Your task to perform on an android device: delete location history Image 0: 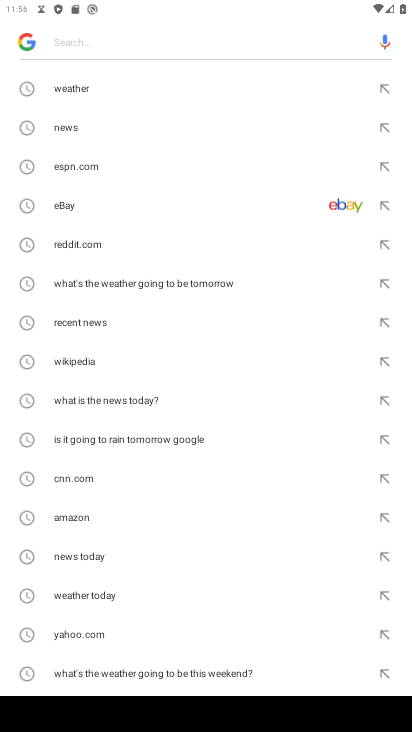
Step 0: press home button
Your task to perform on an android device: delete location history Image 1: 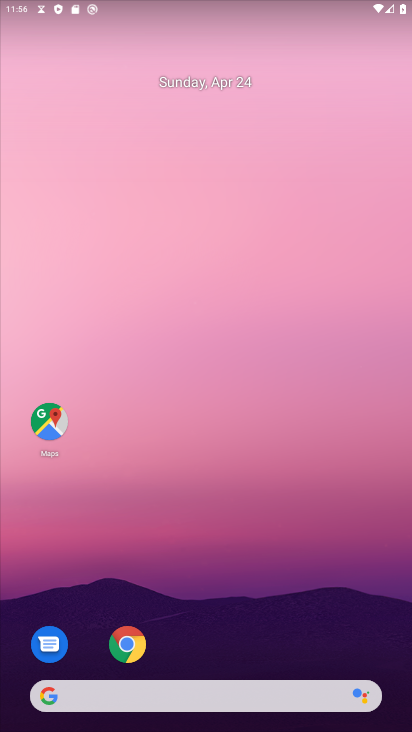
Step 1: click (49, 420)
Your task to perform on an android device: delete location history Image 2: 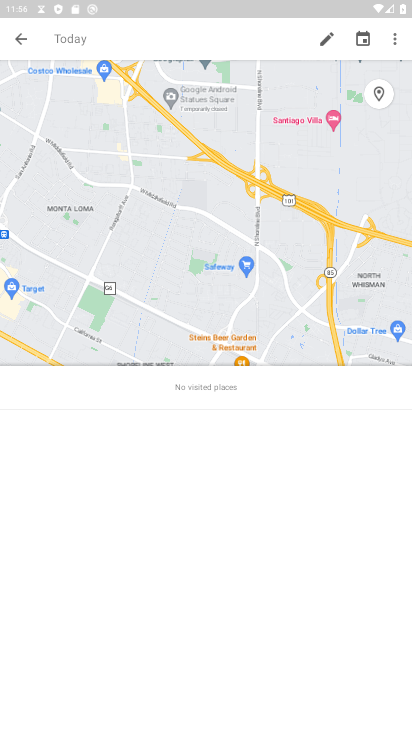
Step 2: click (394, 42)
Your task to perform on an android device: delete location history Image 3: 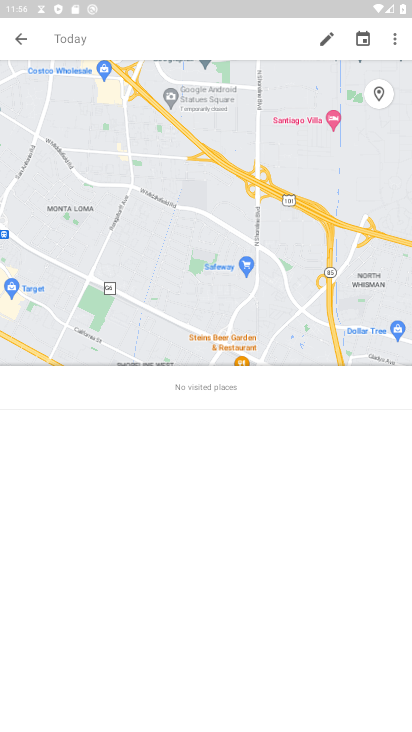
Step 3: click (396, 39)
Your task to perform on an android device: delete location history Image 4: 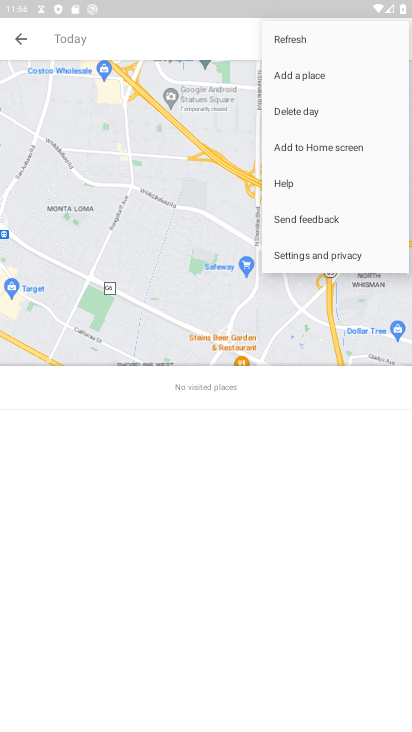
Step 4: click (310, 256)
Your task to perform on an android device: delete location history Image 5: 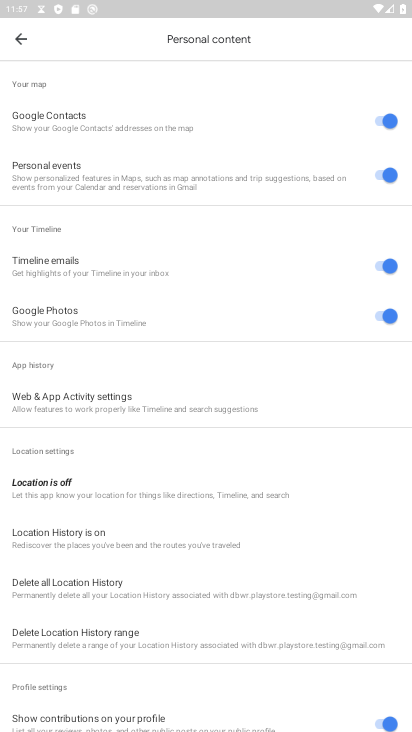
Step 5: click (50, 592)
Your task to perform on an android device: delete location history Image 6: 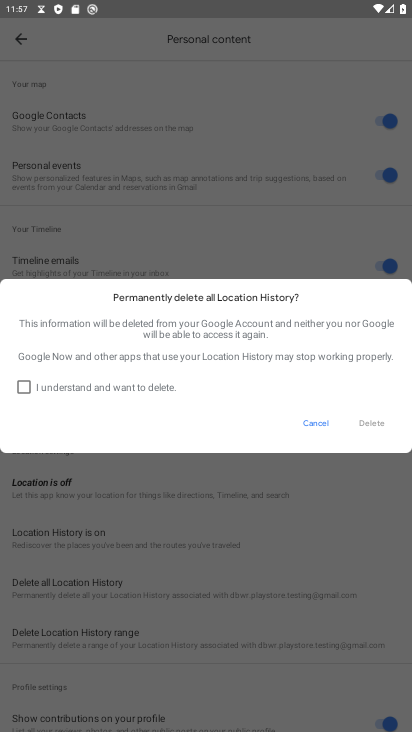
Step 6: click (26, 379)
Your task to perform on an android device: delete location history Image 7: 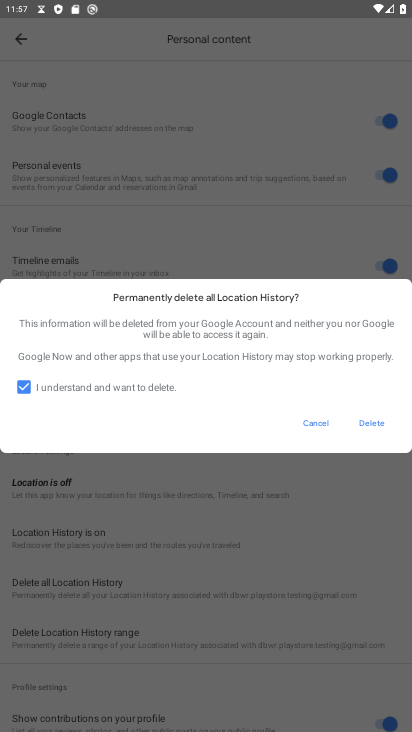
Step 7: click (379, 426)
Your task to perform on an android device: delete location history Image 8: 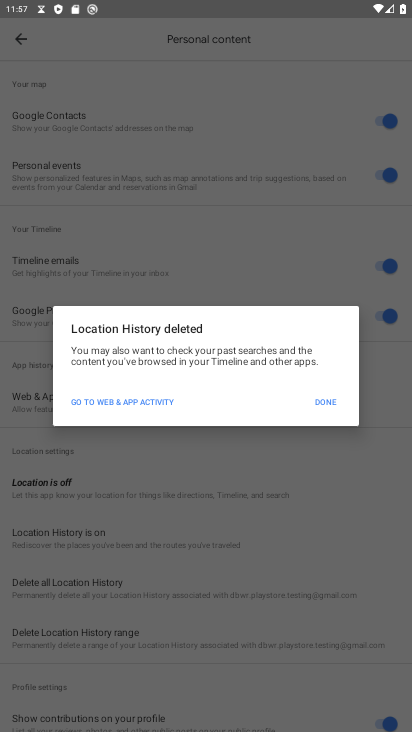
Step 8: click (311, 403)
Your task to perform on an android device: delete location history Image 9: 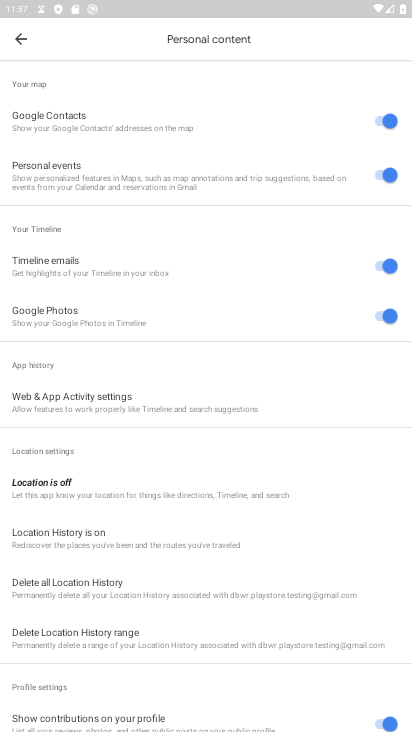
Step 9: task complete